Your task to perform on an android device: Go to notification settings Image 0: 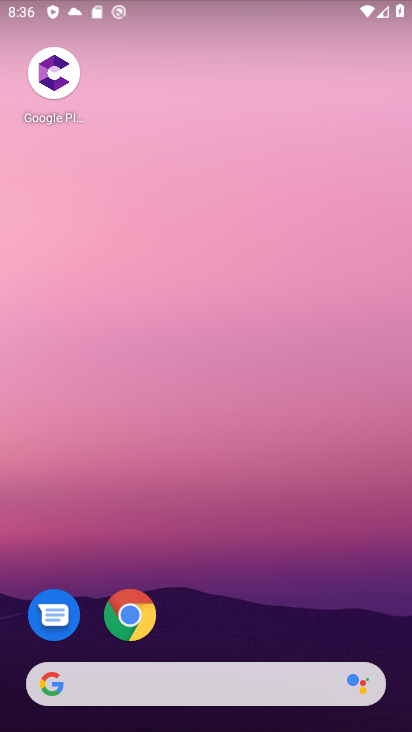
Step 0: drag from (237, 528) to (206, 210)
Your task to perform on an android device: Go to notification settings Image 1: 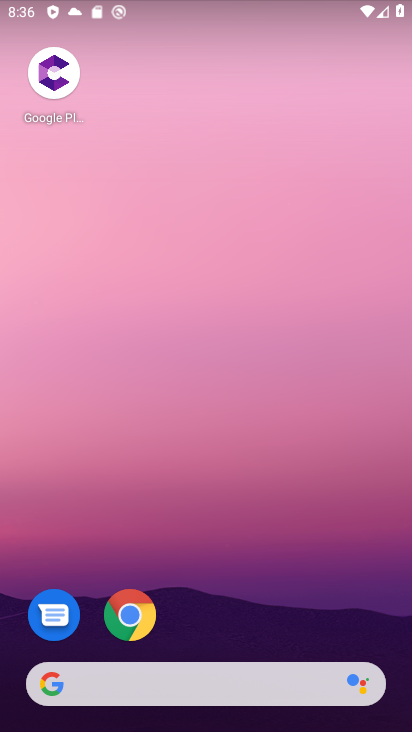
Step 1: drag from (259, 362) to (271, 169)
Your task to perform on an android device: Go to notification settings Image 2: 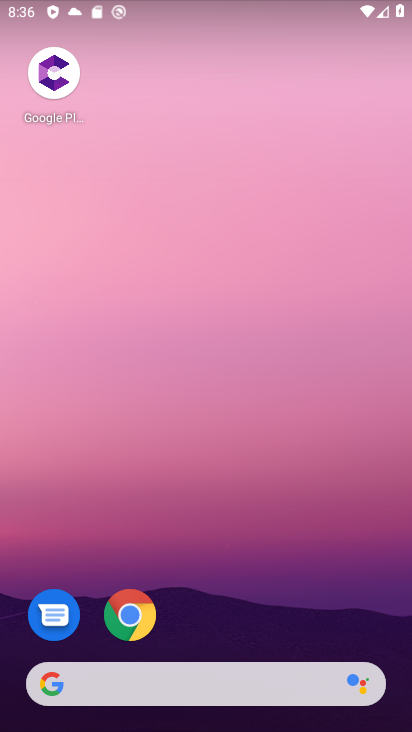
Step 2: drag from (243, 600) to (262, 149)
Your task to perform on an android device: Go to notification settings Image 3: 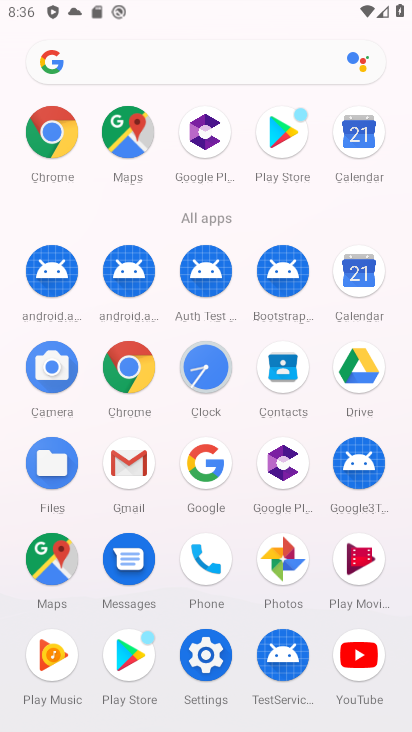
Step 3: click (199, 666)
Your task to perform on an android device: Go to notification settings Image 4: 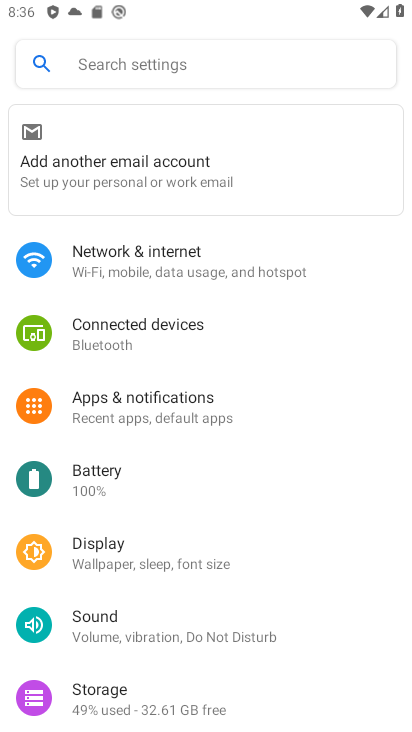
Step 4: click (173, 400)
Your task to perform on an android device: Go to notification settings Image 5: 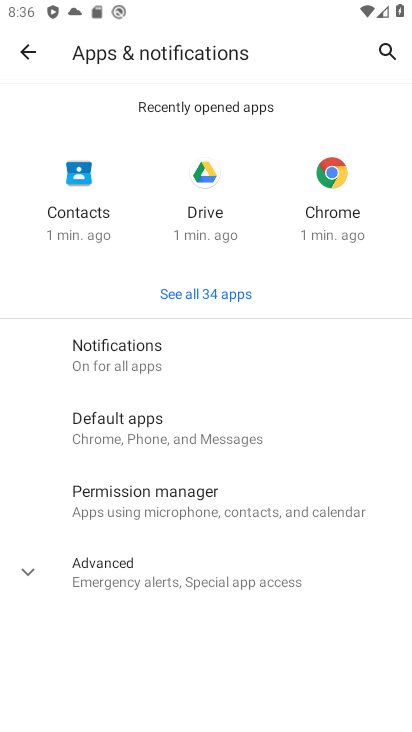
Step 5: click (124, 368)
Your task to perform on an android device: Go to notification settings Image 6: 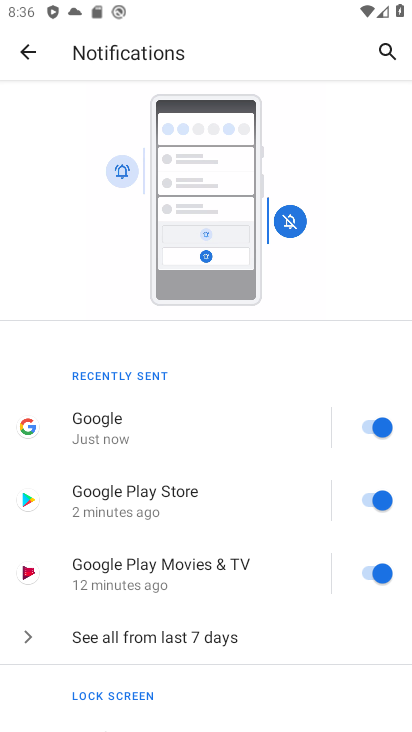
Step 6: task complete